Your task to perform on an android device: clear all cookies in the chrome app Image 0: 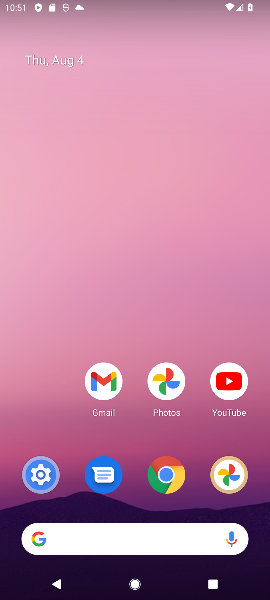
Step 0: click (166, 475)
Your task to perform on an android device: clear all cookies in the chrome app Image 1: 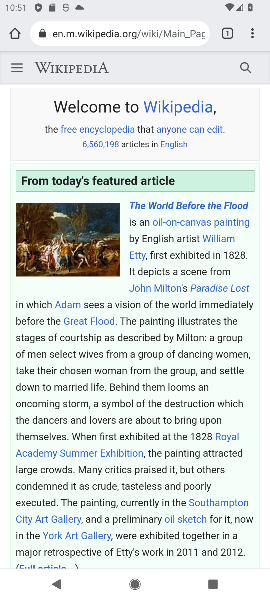
Step 1: click (255, 36)
Your task to perform on an android device: clear all cookies in the chrome app Image 2: 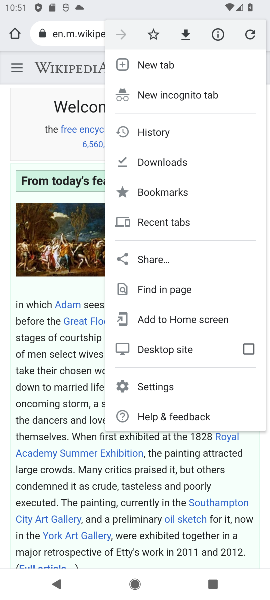
Step 2: click (159, 381)
Your task to perform on an android device: clear all cookies in the chrome app Image 3: 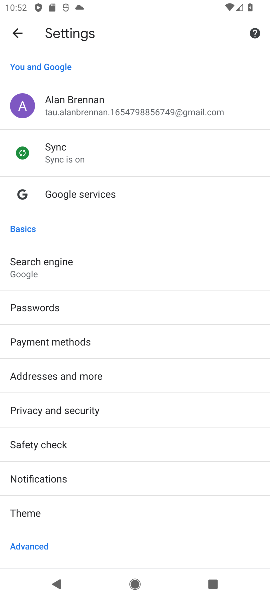
Step 3: drag from (187, 467) to (190, 210)
Your task to perform on an android device: clear all cookies in the chrome app Image 4: 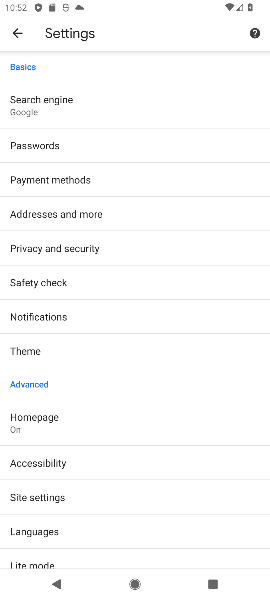
Step 4: click (81, 244)
Your task to perform on an android device: clear all cookies in the chrome app Image 5: 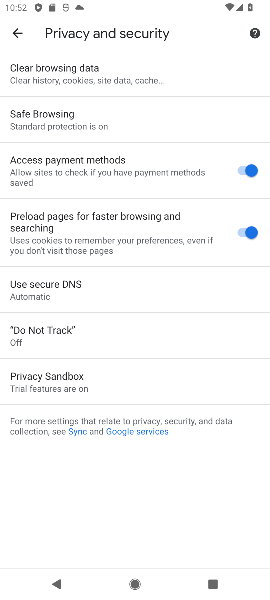
Step 5: click (144, 75)
Your task to perform on an android device: clear all cookies in the chrome app Image 6: 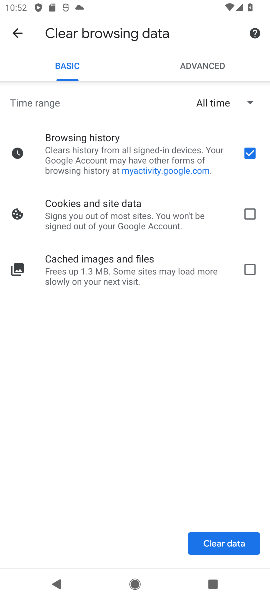
Step 6: click (250, 149)
Your task to perform on an android device: clear all cookies in the chrome app Image 7: 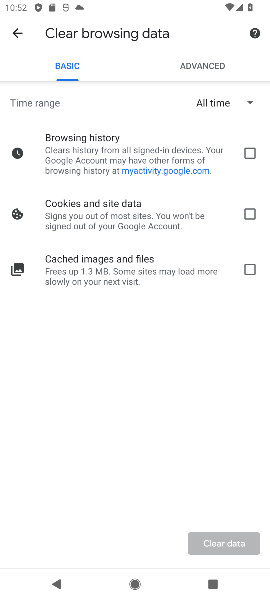
Step 7: click (251, 213)
Your task to perform on an android device: clear all cookies in the chrome app Image 8: 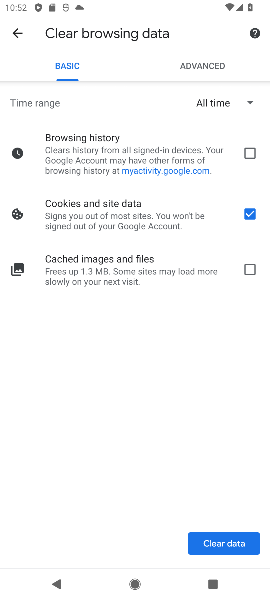
Step 8: click (243, 542)
Your task to perform on an android device: clear all cookies in the chrome app Image 9: 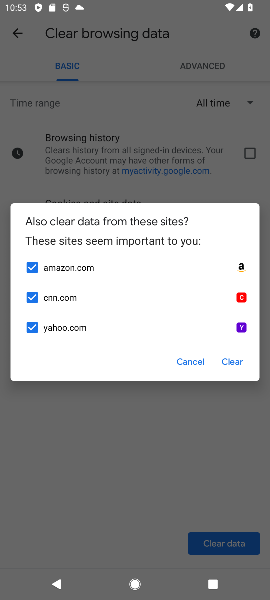
Step 9: click (232, 361)
Your task to perform on an android device: clear all cookies in the chrome app Image 10: 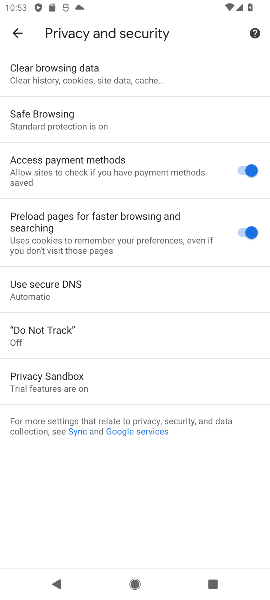
Step 10: task complete